Your task to perform on an android device: Search for Mexican restaurants on Maps Image 0: 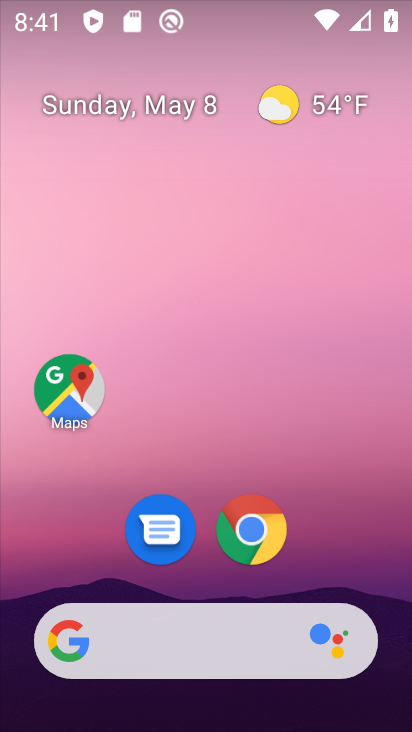
Step 0: drag from (371, 577) to (377, 87)
Your task to perform on an android device: Search for Mexican restaurants on Maps Image 1: 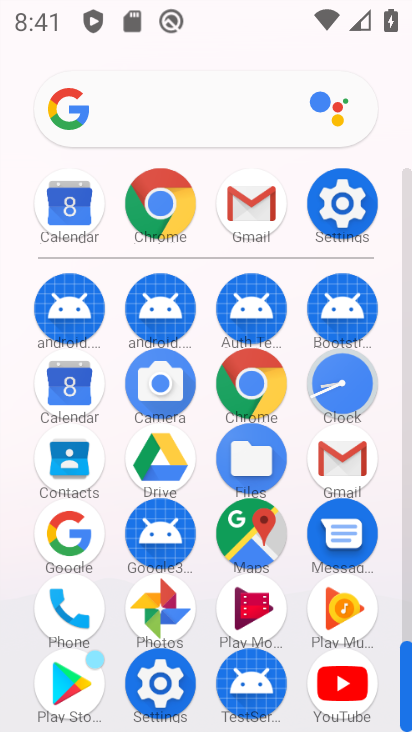
Step 1: click (248, 533)
Your task to perform on an android device: Search for Mexican restaurants on Maps Image 2: 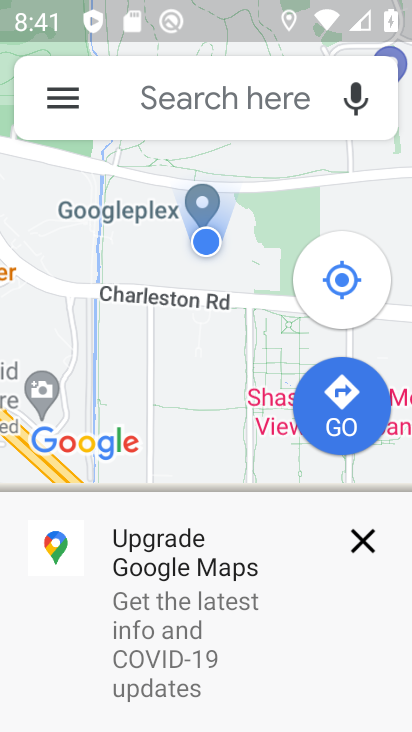
Step 2: click (357, 539)
Your task to perform on an android device: Search for Mexican restaurants on Maps Image 3: 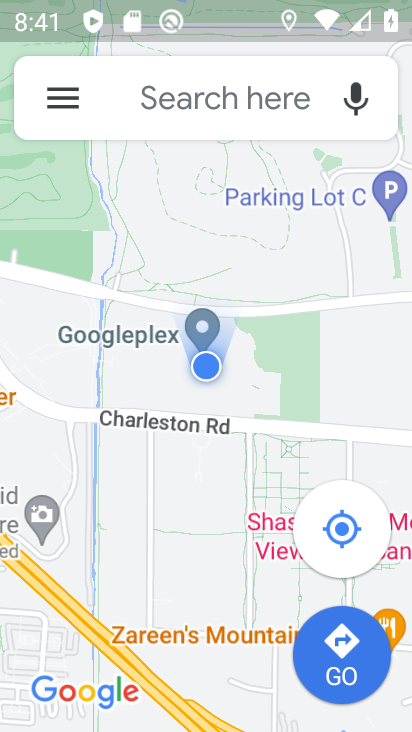
Step 3: click (199, 110)
Your task to perform on an android device: Search for Mexican restaurants on Maps Image 4: 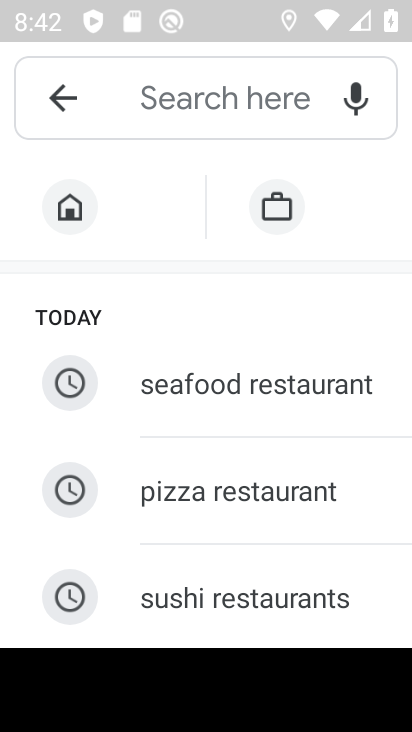
Step 4: type "mexican restaurants "
Your task to perform on an android device: Search for Mexican restaurants on Maps Image 5: 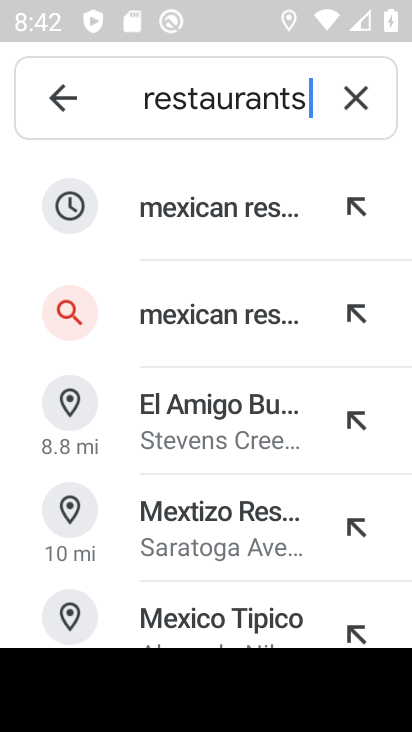
Step 5: click (156, 215)
Your task to perform on an android device: Search for Mexican restaurants on Maps Image 6: 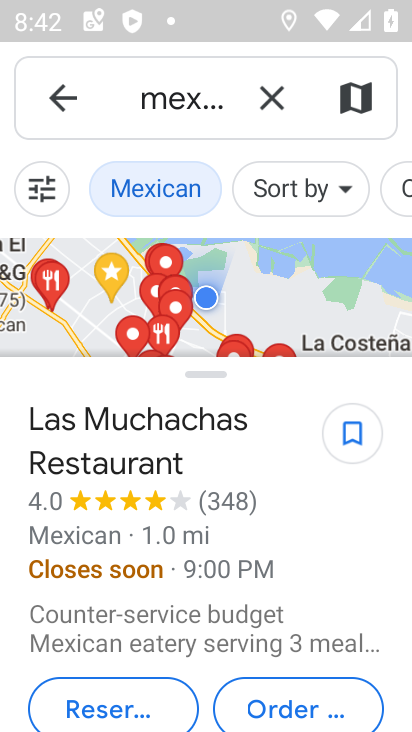
Step 6: task complete